Your task to perform on an android device: Add "jbl charge 4" to the cart on newegg.com, then select checkout. Image 0: 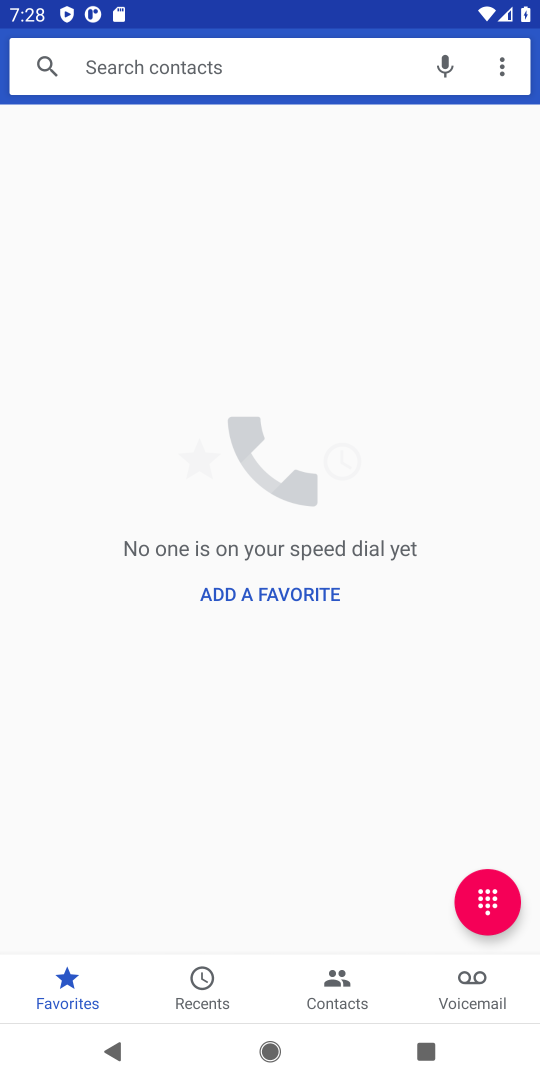
Step 0: press home button
Your task to perform on an android device: Add "jbl charge 4" to the cart on newegg.com, then select checkout. Image 1: 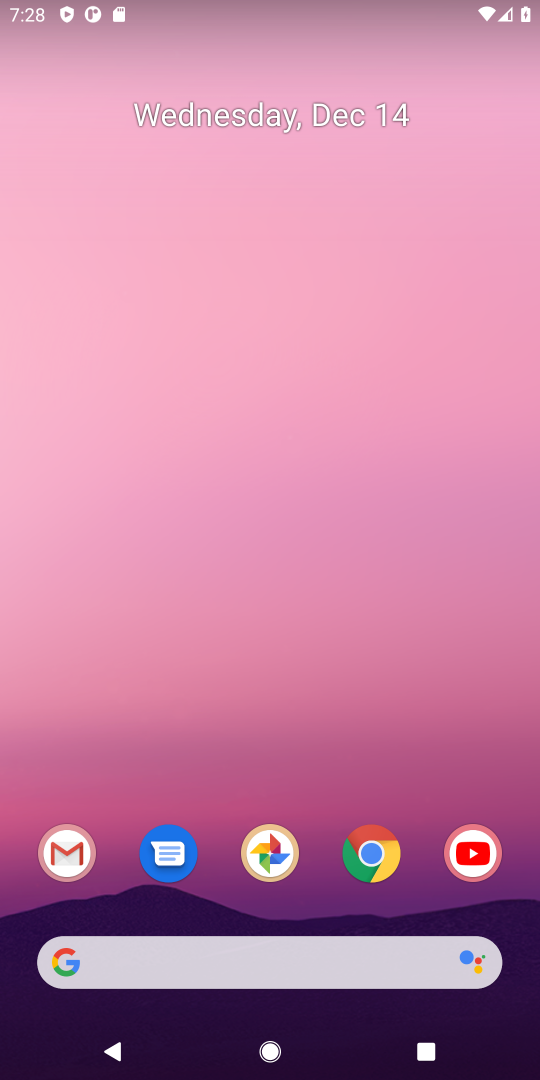
Step 1: click (388, 852)
Your task to perform on an android device: Add "jbl charge 4" to the cart on newegg.com, then select checkout. Image 2: 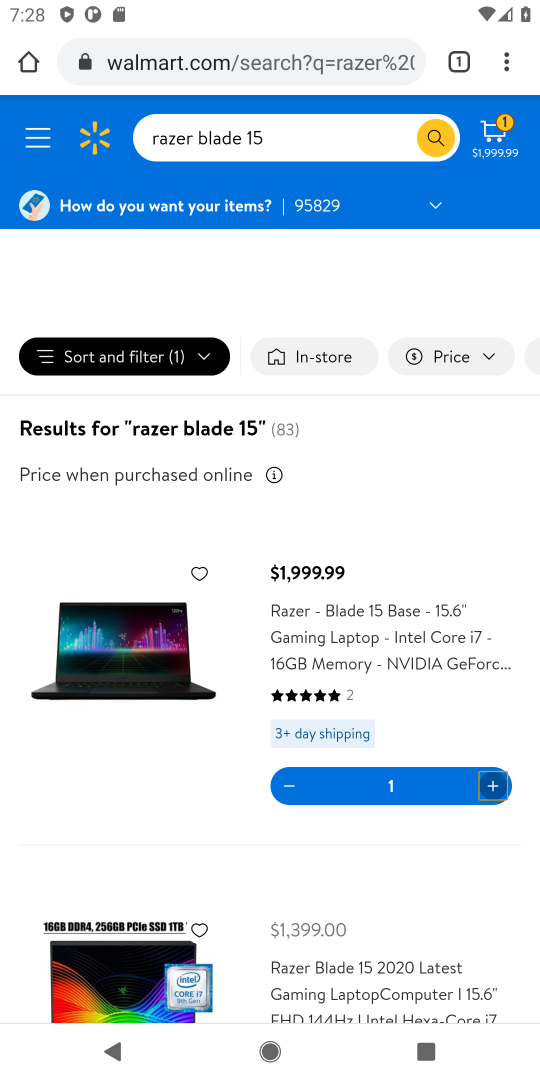
Step 2: click (462, 68)
Your task to perform on an android device: Add "jbl charge 4" to the cart on newegg.com, then select checkout. Image 3: 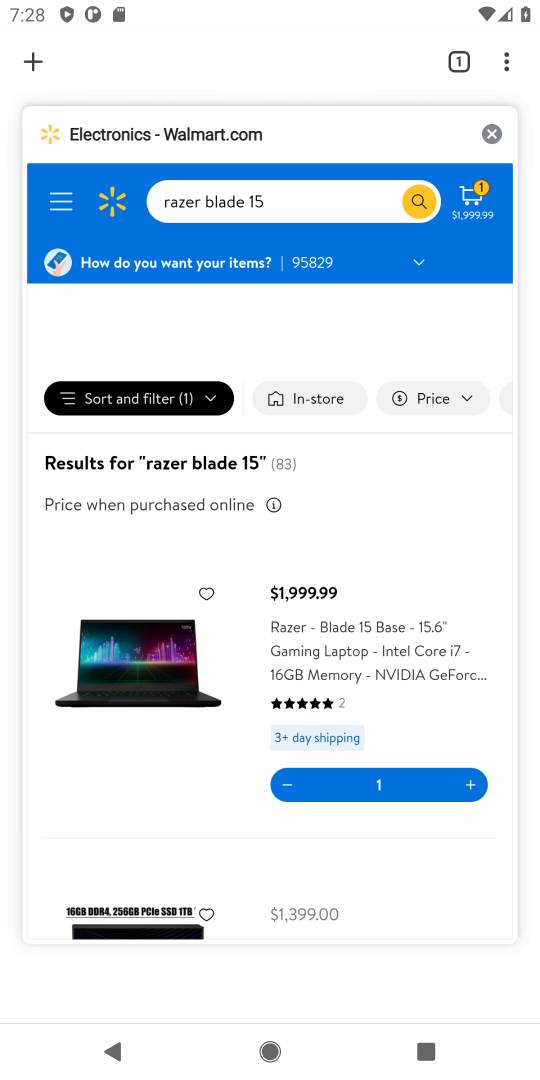
Step 3: click (37, 76)
Your task to perform on an android device: Add "jbl charge 4" to the cart on newegg.com, then select checkout. Image 4: 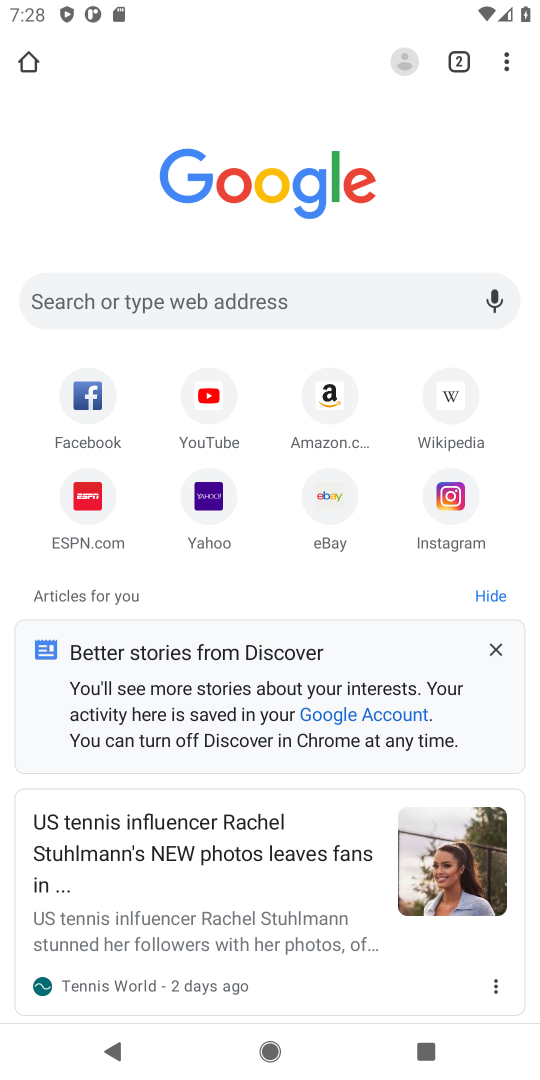
Step 4: click (179, 290)
Your task to perform on an android device: Add "jbl charge 4" to the cart on newegg.com, then select checkout. Image 5: 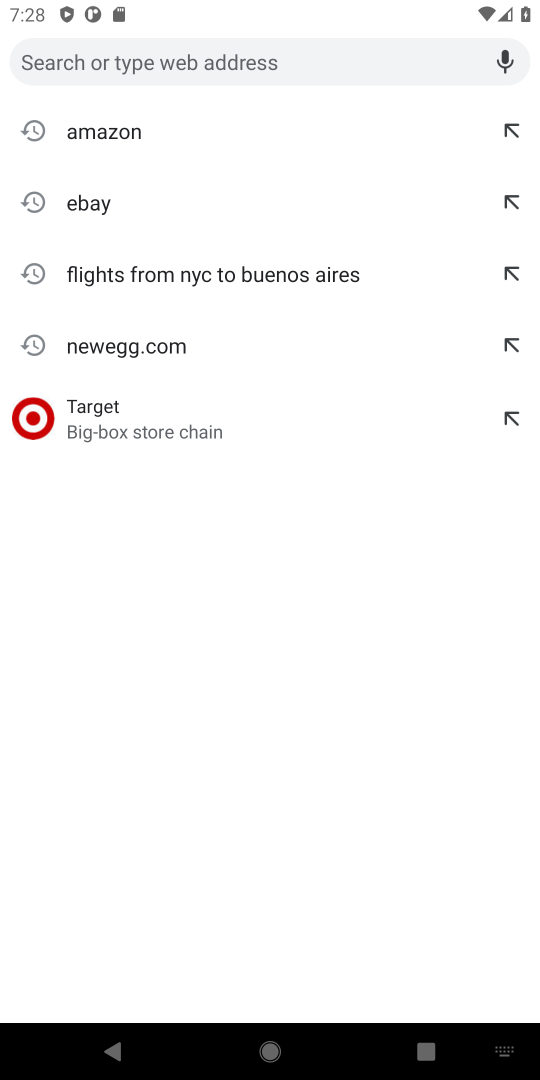
Step 5: click (90, 351)
Your task to perform on an android device: Add "jbl charge 4" to the cart on newegg.com, then select checkout. Image 6: 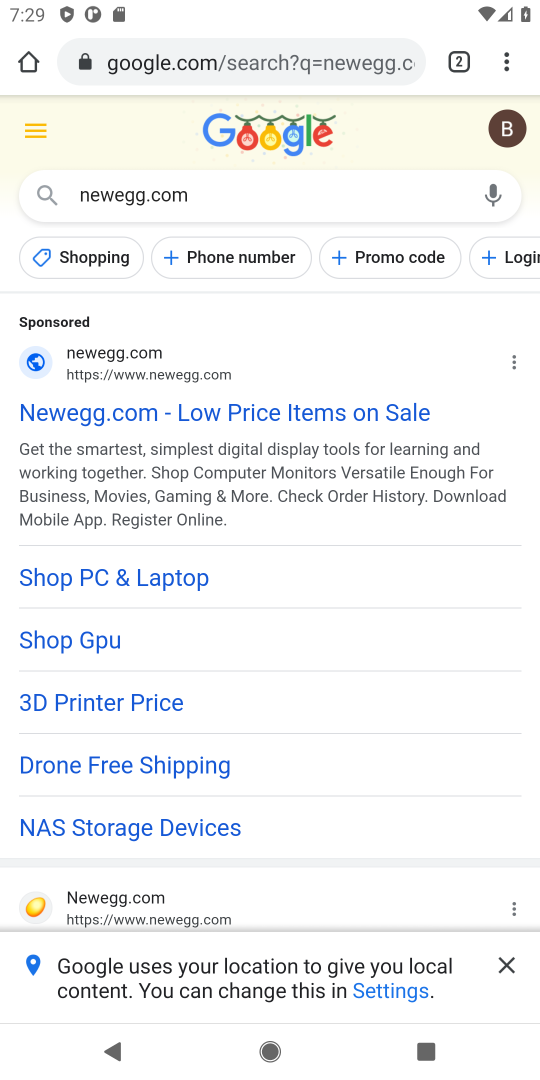
Step 6: drag from (109, 869) to (165, 403)
Your task to perform on an android device: Add "jbl charge 4" to the cart on newegg.com, then select checkout. Image 7: 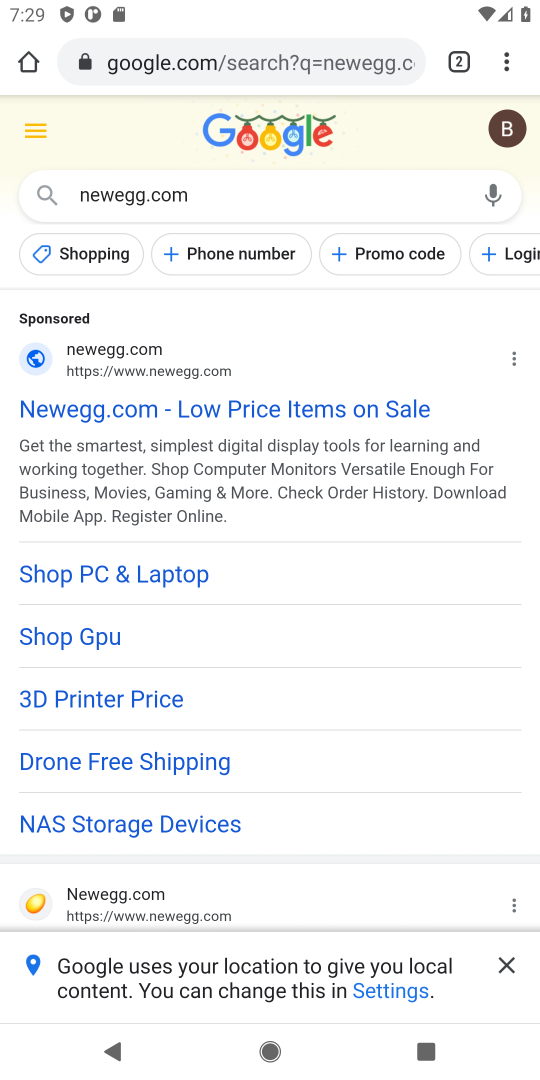
Step 7: drag from (187, 895) to (267, 542)
Your task to perform on an android device: Add "jbl charge 4" to the cart on newegg.com, then select checkout. Image 8: 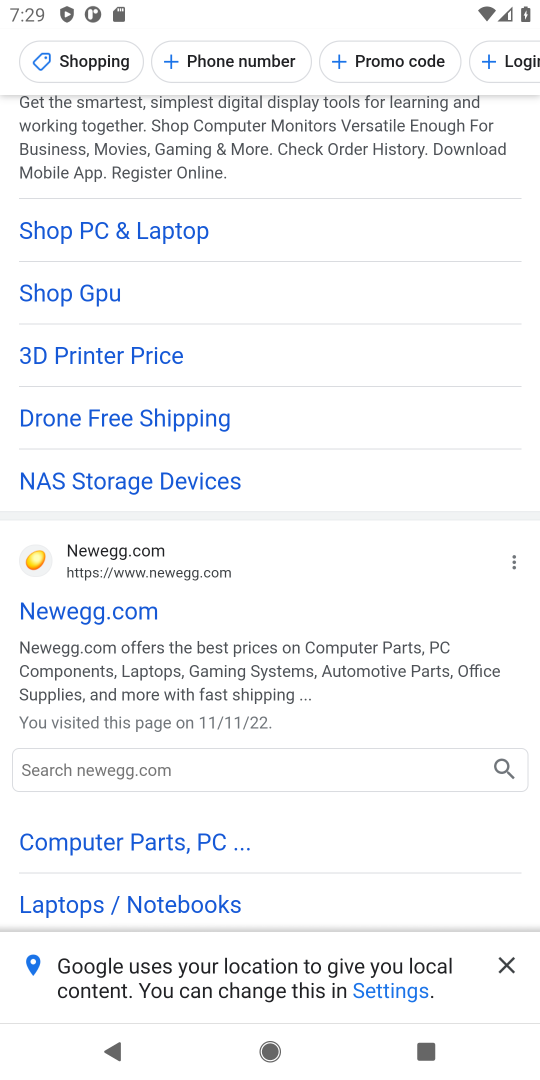
Step 8: click (136, 766)
Your task to perform on an android device: Add "jbl charge 4" to the cart on newegg.com, then select checkout. Image 9: 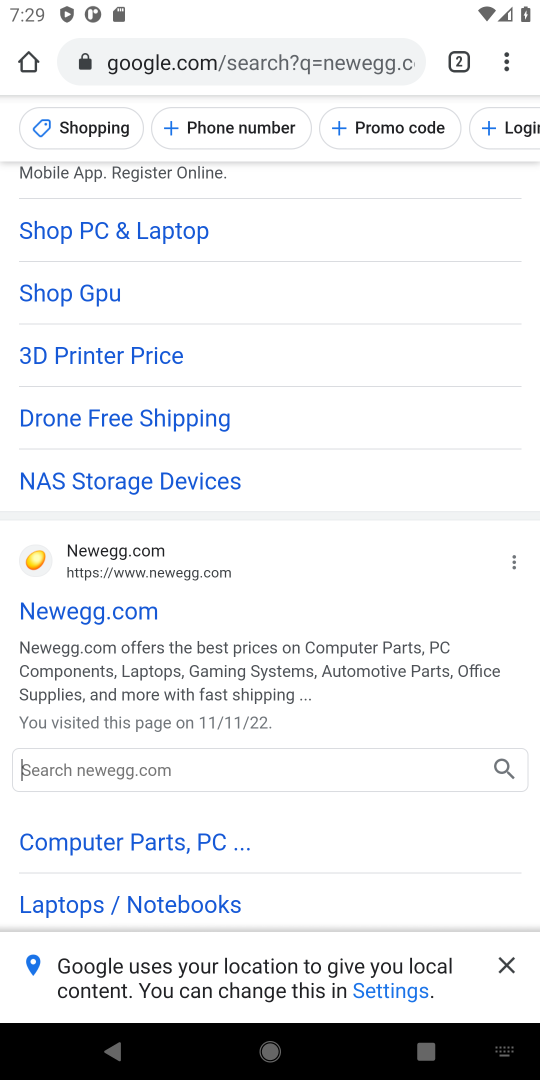
Step 9: type "jbl charge 4"
Your task to perform on an android device: Add "jbl charge 4" to the cart on newegg.com, then select checkout. Image 10: 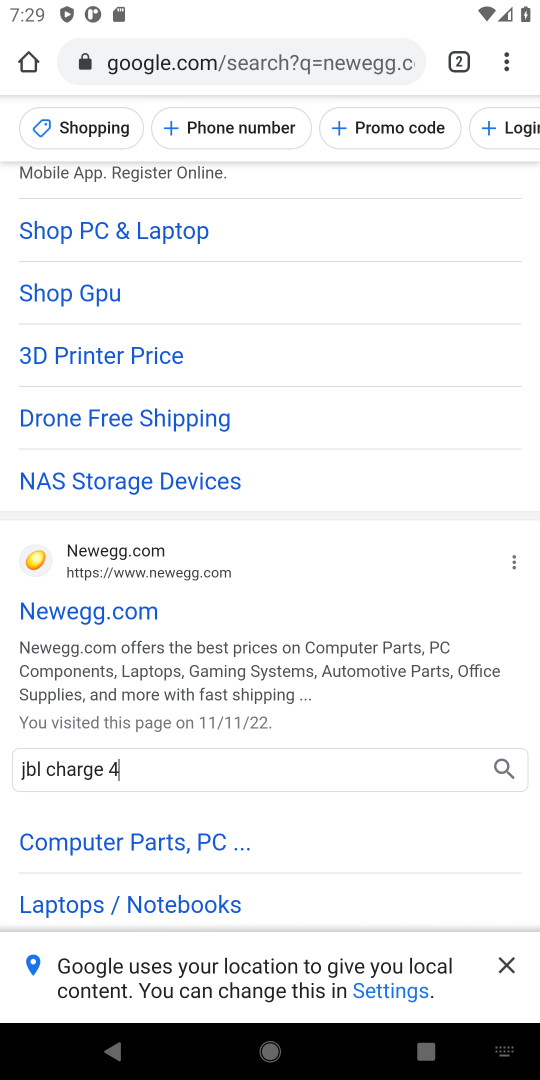
Step 10: click (506, 765)
Your task to perform on an android device: Add "jbl charge 4" to the cart on newegg.com, then select checkout. Image 11: 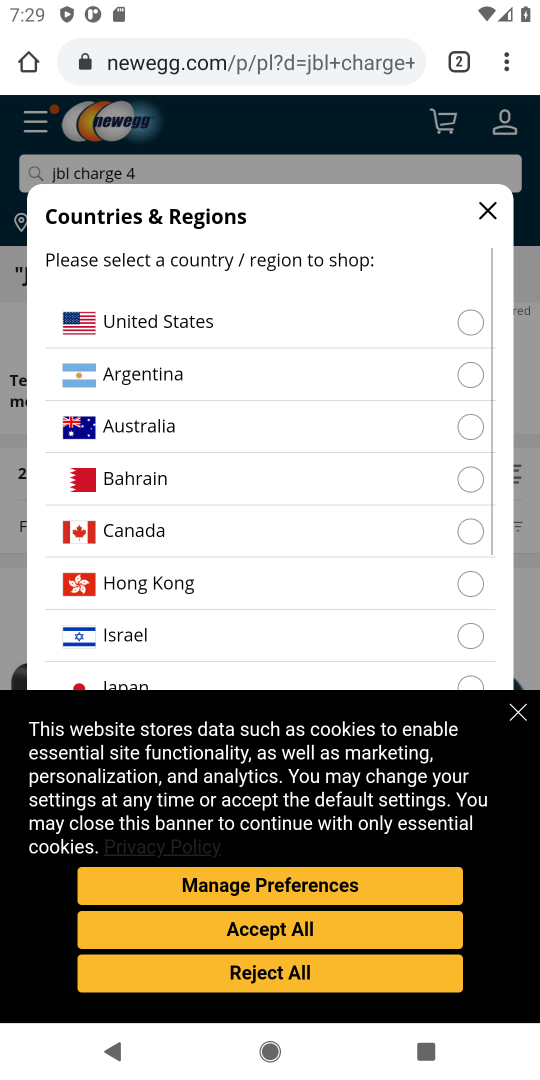
Step 11: click (304, 938)
Your task to perform on an android device: Add "jbl charge 4" to the cart on newegg.com, then select checkout. Image 12: 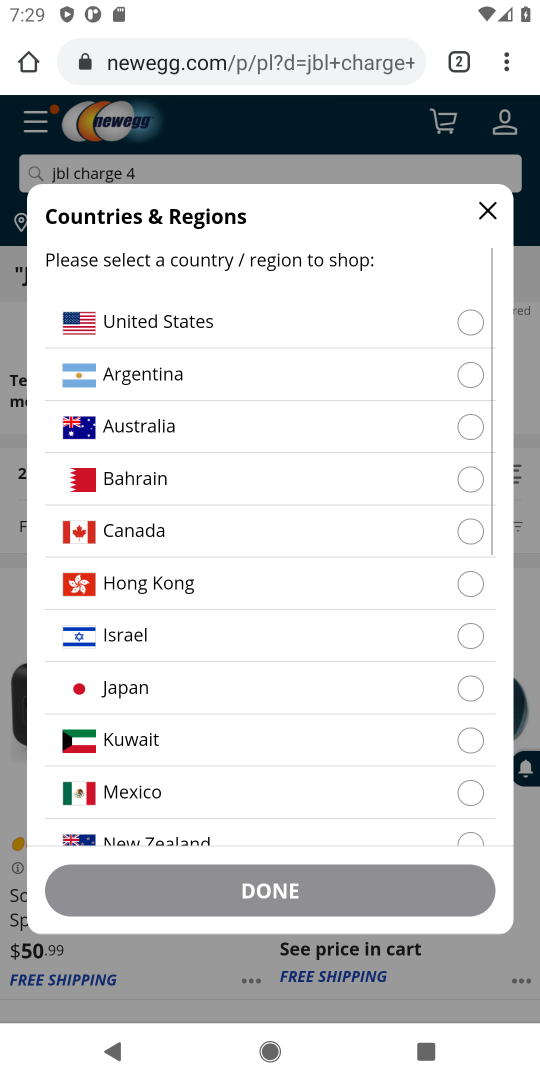
Step 12: click (477, 319)
Your task to perform on an android device: Add "jbl charge 4" to the cart on newegg.com, then select checkout. Image 13: 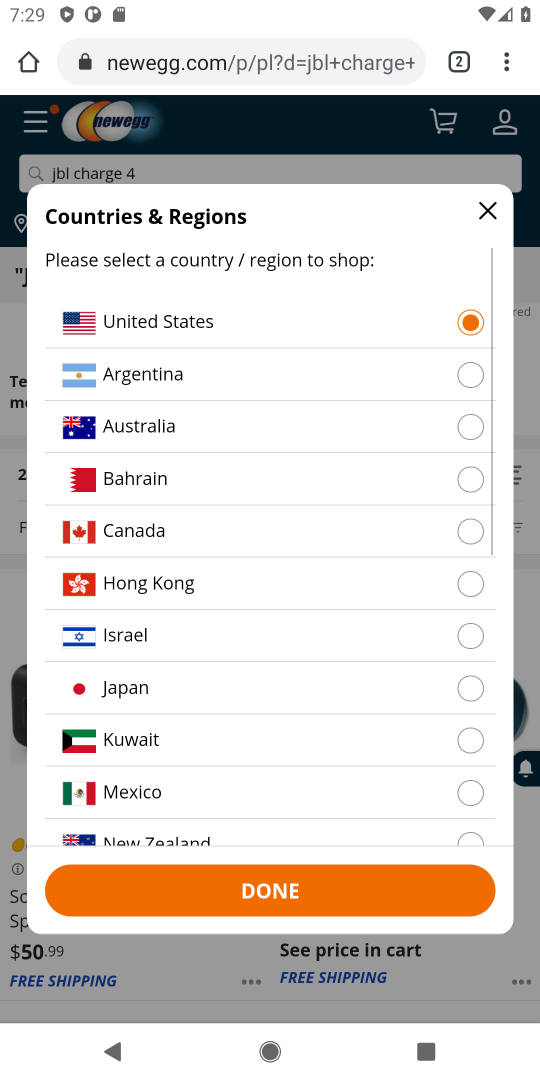
Step 13: click (272, 882)
Your task to perform on an android device: Add "jbl charge 4" to the cart on newegg.com, then select checkout. Image 14: 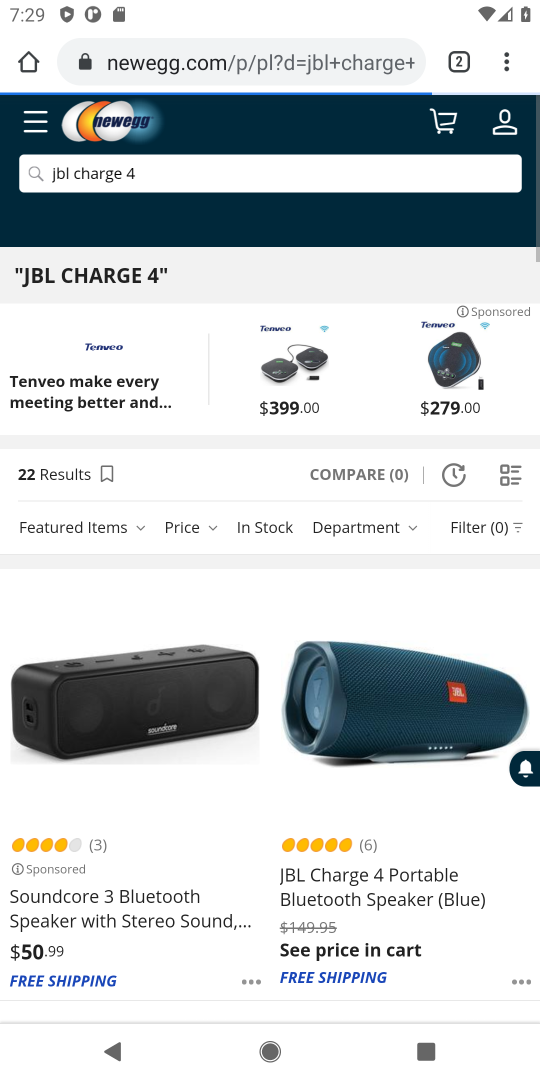
Step 14: click (300, 164)
Your task to perform on an android device: Add "jbl charge 4" to the cart on newegg.com, then select checkout. Image 15: 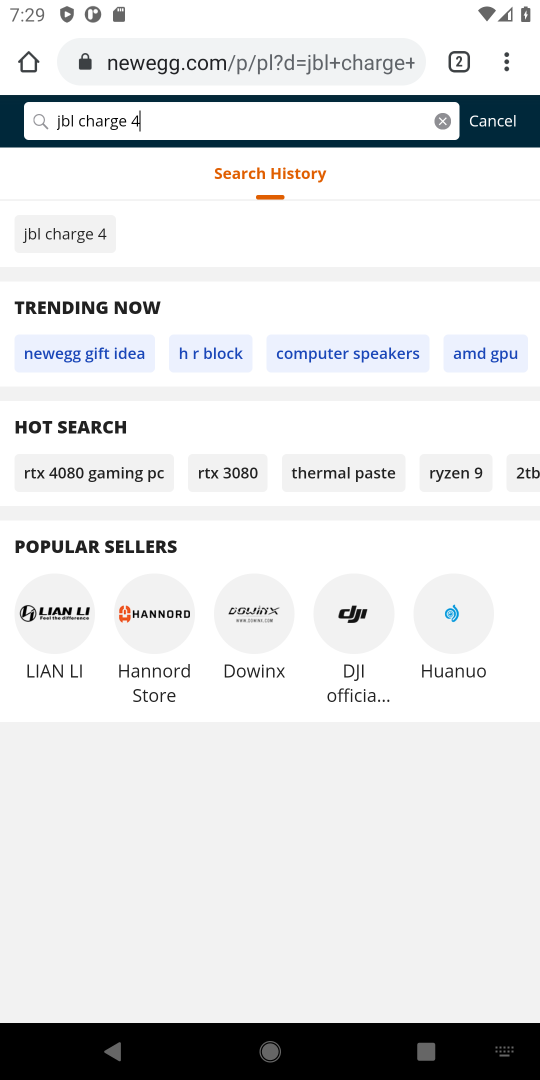
Step 15: press enter
Your task to perform on an android device: Add "jbl charge 4" to the cart on newegg.com, then select checkout. Image 16: 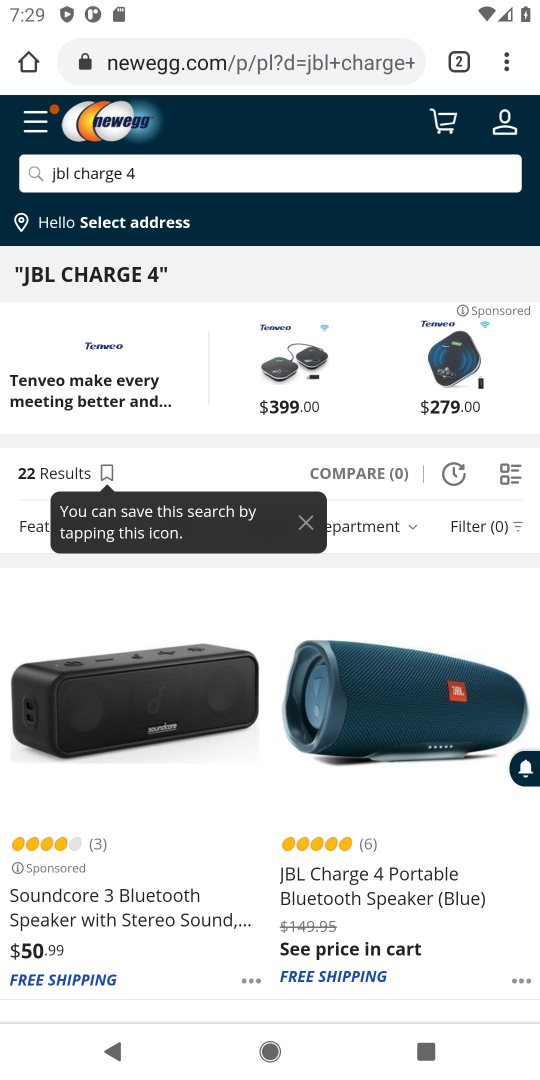
Step 16: click (373, 886)
Your task to perform on an android device: Add "jbl charge 4" to the cart on newegg.com, then select checkout. Image 17: 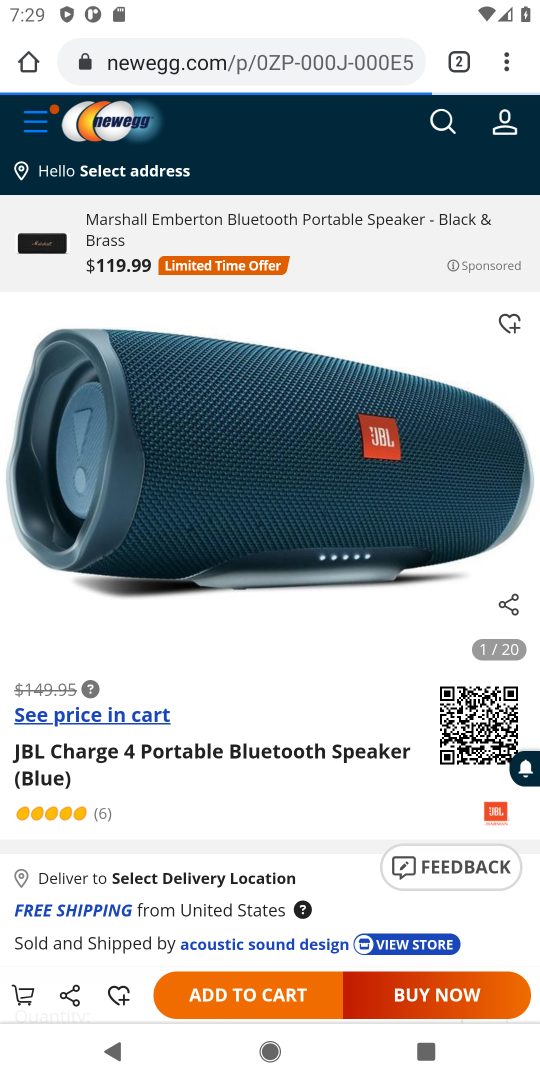
Step 17: click (246, 1000)
Your task to perform on an android device: Add "jbl charge 4" to the cart on newegg.com, then select checkout. Image 18: 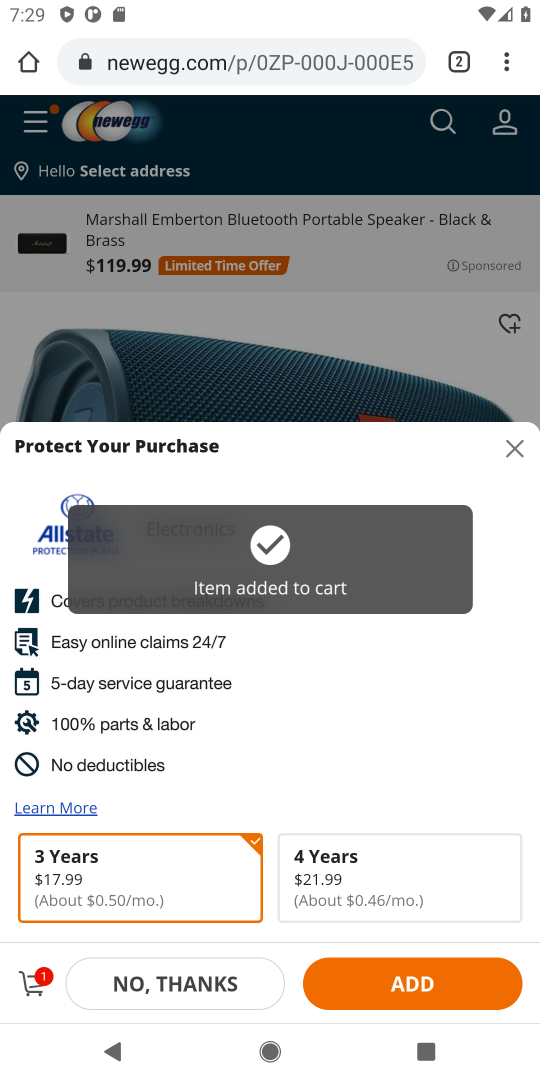
Step 18: task complete